Your task to perform on an android device: toggle notification dots Image 0: 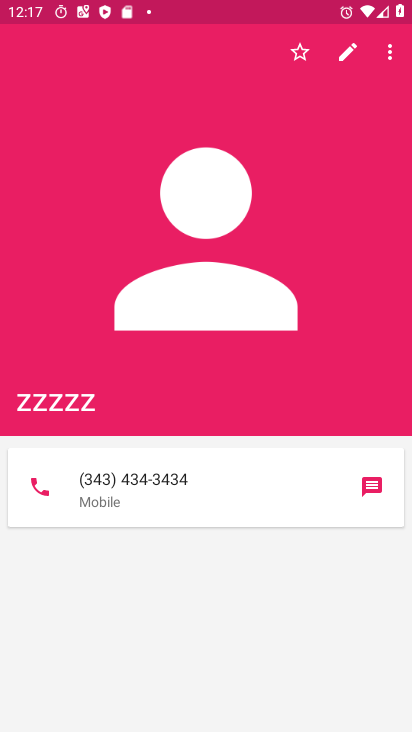
Step 0: press home button
Your task to perform on an android device: toggle notification dots Image 1: 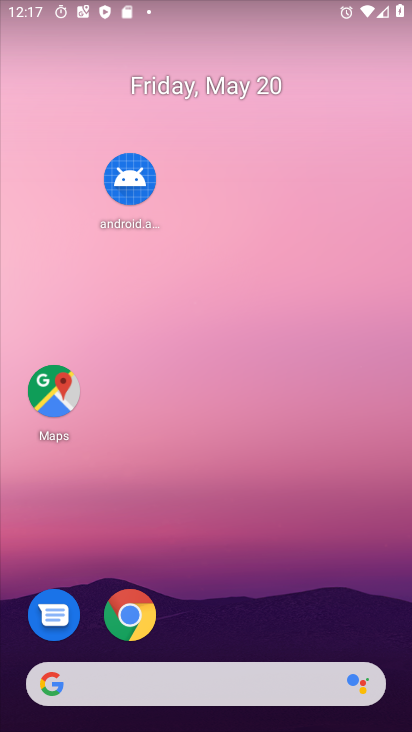
Step 1: drag from (332, 610) to (281, 198)
Your task to perform on an android device: toggle notification dots Image 2: 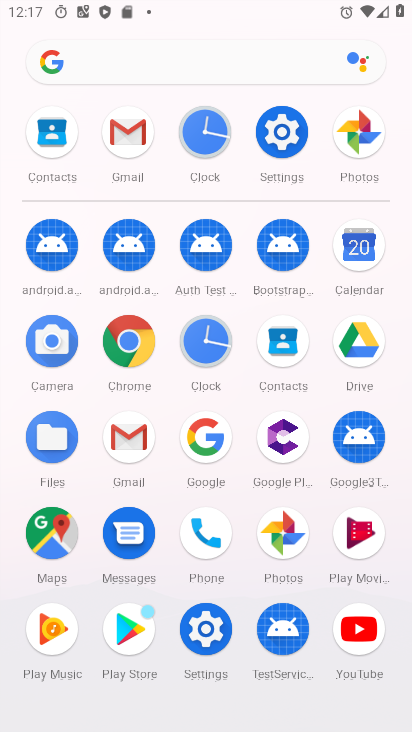
Step 2: click (289, 113)
Your task to perform on an android device: toggle notification dots Image 3: 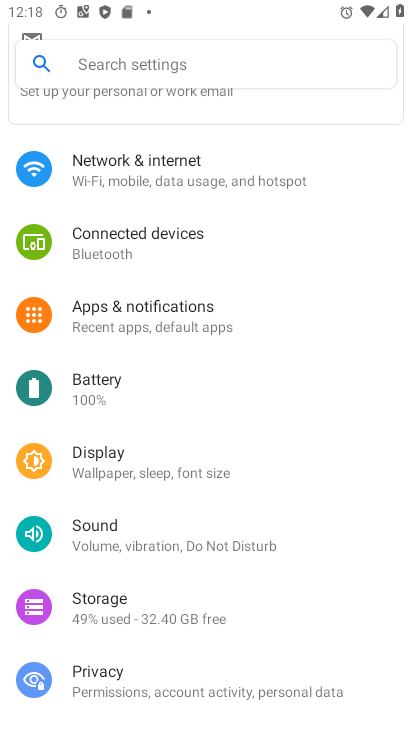
Step 3: click (110, 330)
Your task to perform on an android device: toggle notification dots Image 4: 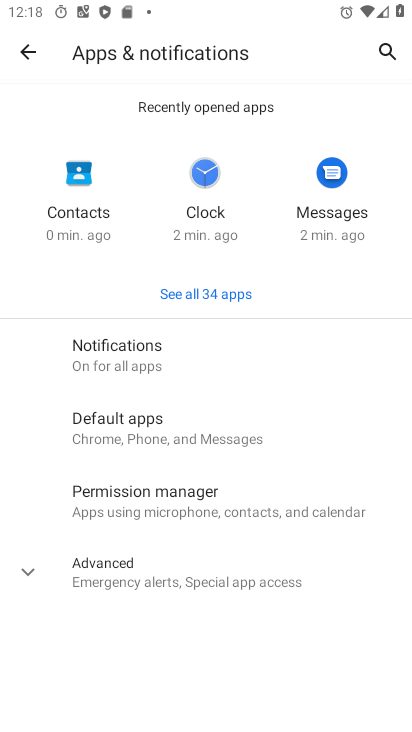
Step 4: click (174, 359)
Your task to perform on an android device: toggle notification dots Image 5: 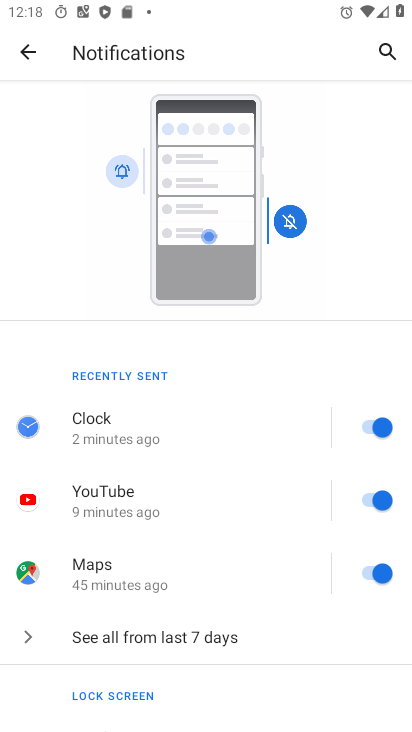
Step 5: drag from (209, 670) to (201, 297)
Your task to perform on an android device: toggle notification dots Image 6: 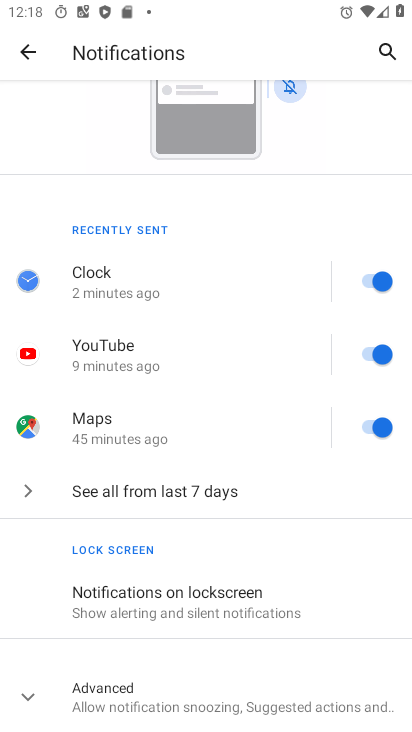
Step 6: click (189, 700)
Your task to perform on an android device: toggle notification dots Image 7: 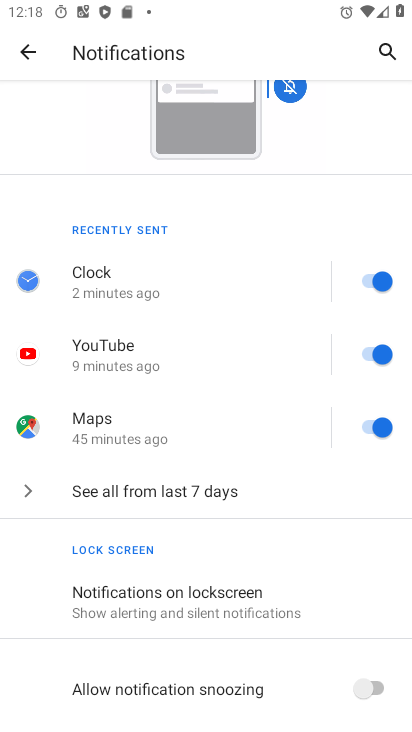
Step 7: drag from (190, 680) to (158, 370)
Your task to perform on an android device: toggle notification dots Image 8: 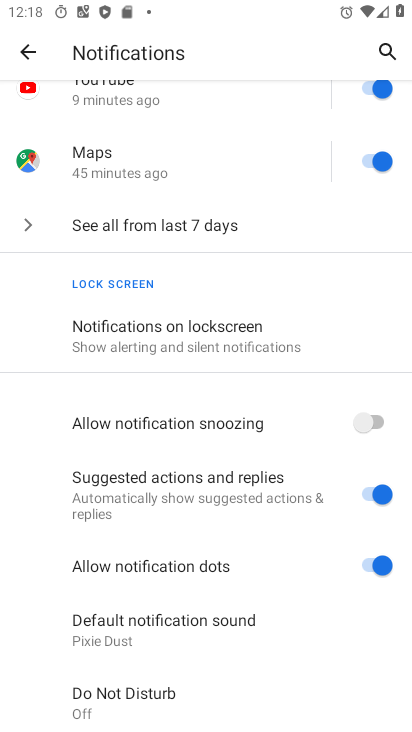
Step 8: click (225, 560)
Your task to perform on an android device: toggle notification dots Image 9: 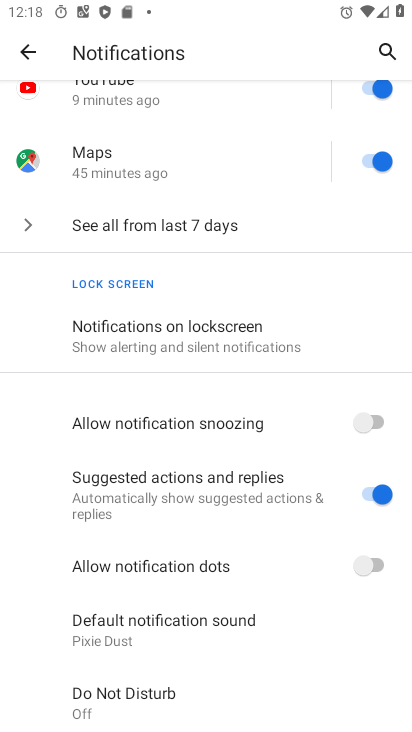
Step 9: task complete